Your task to perform on an android device: create a new album in the google photos Image 0: 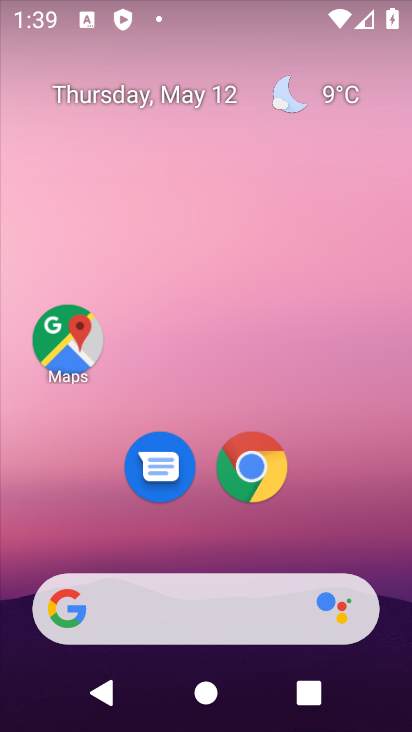
Step 0: click (311, 493)
Your task to perform on an android device: create a new album in the google photos Image 1: 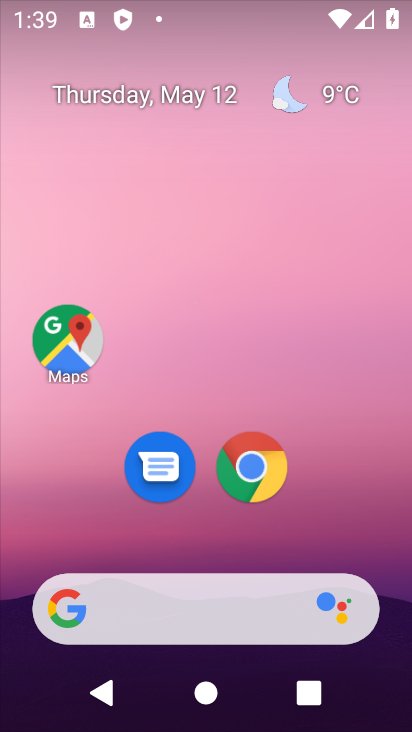
Step 1: drag from (315, 560) to (361, 223)
Your task to perform on an android device: create a new album in the google photos Image 2: 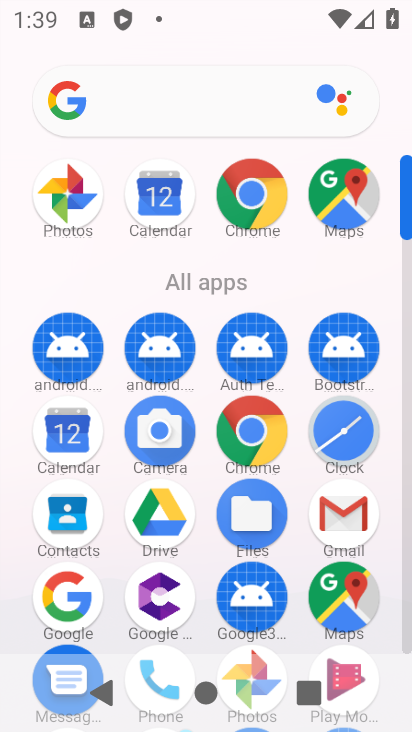
Step 2: drag from (176, 545) to (254, 229)
Your task to perform on an android device: create a new album in the google photos Image 3: 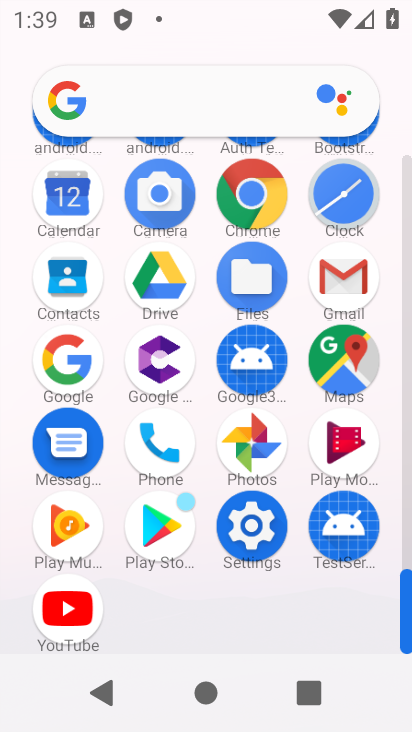
Step 3: click (247, 437)
Your task to perform on an android device: create a new album in the google photos Image 4: 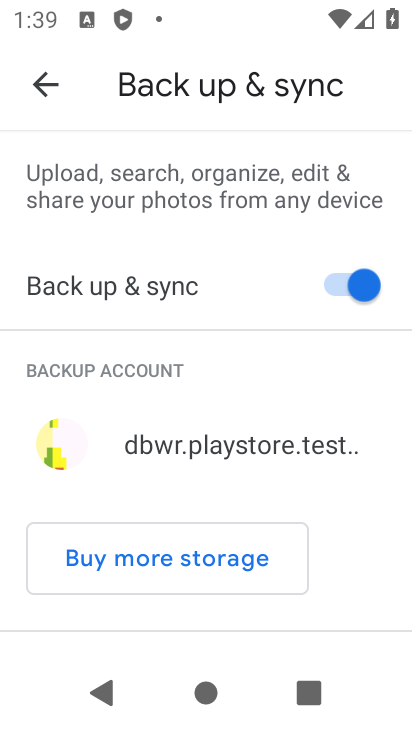
Step 4: click (30, 87)
Your task to perform on an android device: create a new album in the google photos Image 5: 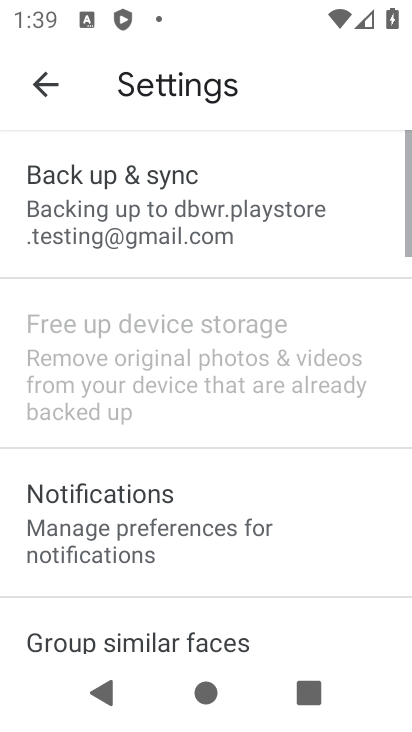
Step 5: click (30, 96)
Your task to perform on an android device: create a new album in the google photos Image 6: 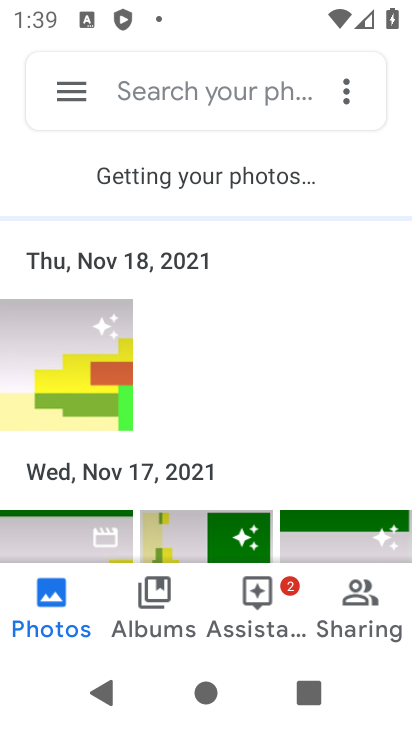
Step 6: click (68, 83)
Your task to perform on an android device: create a new album in the google photos Image 7: 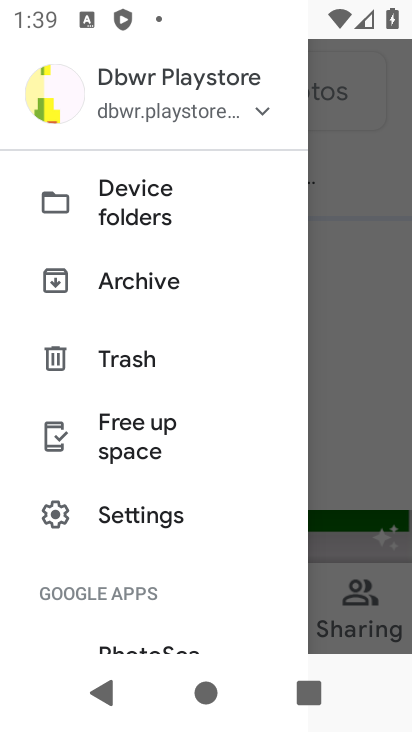
Step 7: click (370, 331)
Your task to perform on an android device: create a new album in the google photos Image 8: 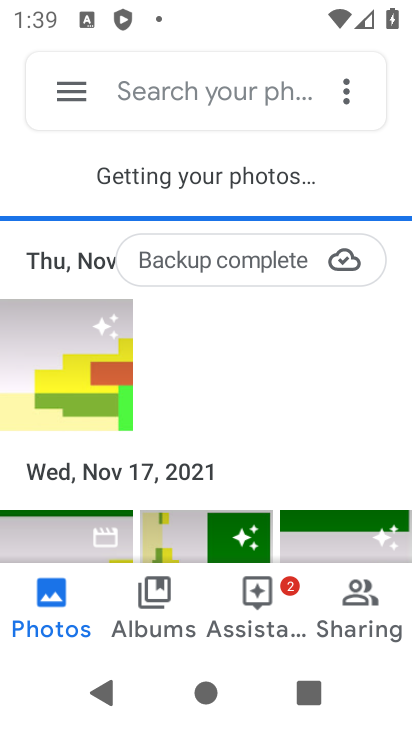
Step 8: click (116, 387)
Your task to perform on an android device: create a new album in the google photos Image 9: 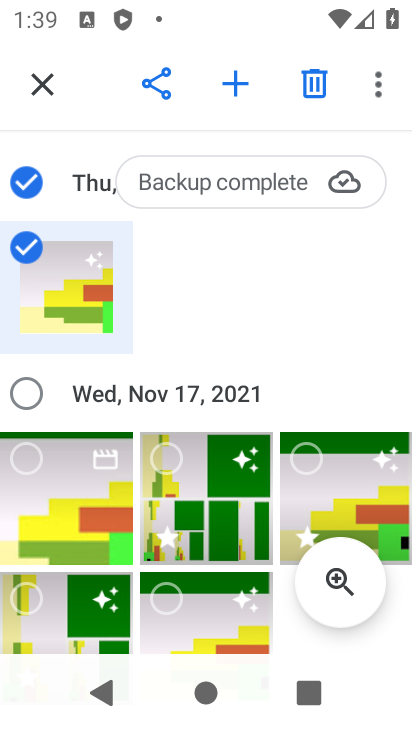
Step 9: click (216, 93)
Your task to perform on an android device: create a new album in the google photos Image 10: 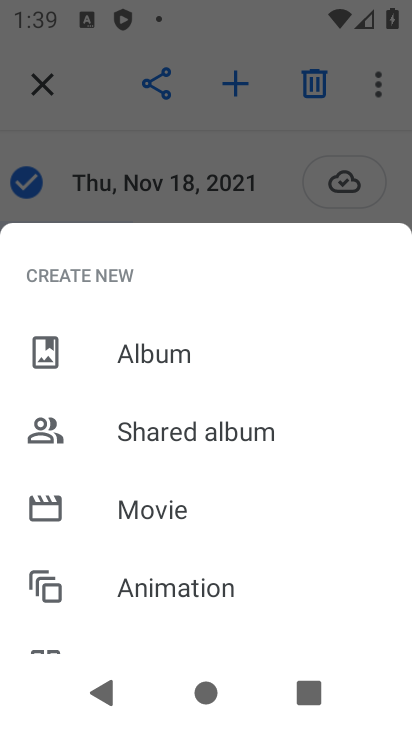
Step 10: click (161, 348)
Your task to perform on an android device: create a new album in the google photos Image 11: 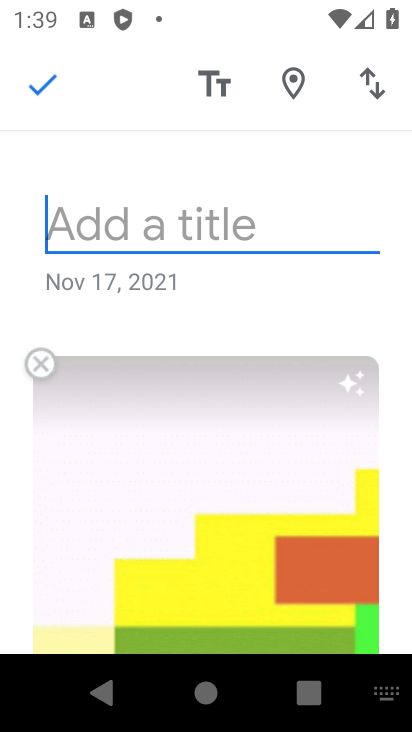
Step 11: click (144, 212)
Your task to perform on an android device: create a new album in the google photos Image 12: 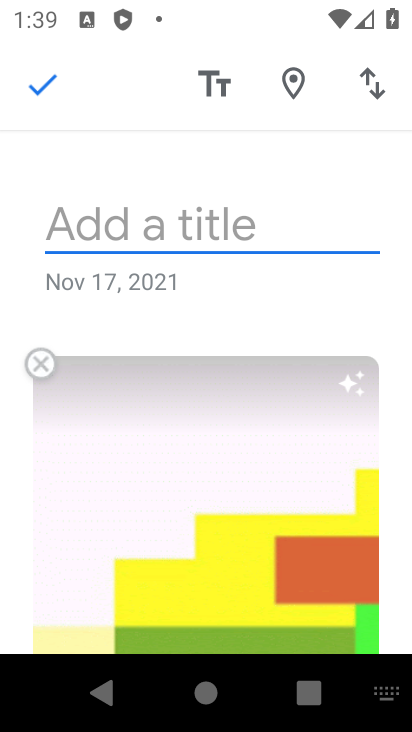
Step 12: type "dddddddddddd"
Your task to perform on an android device: create a new album in the google photos Image 13: 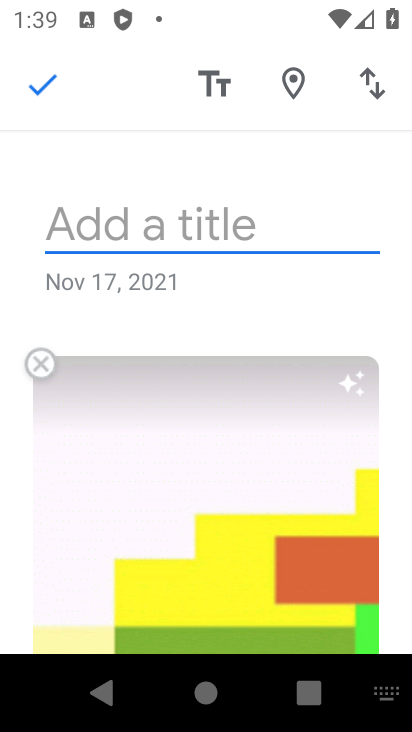
Step 13: click (38, 86)
Your task to perform on an android device: create a new album in the google photos Image 14: 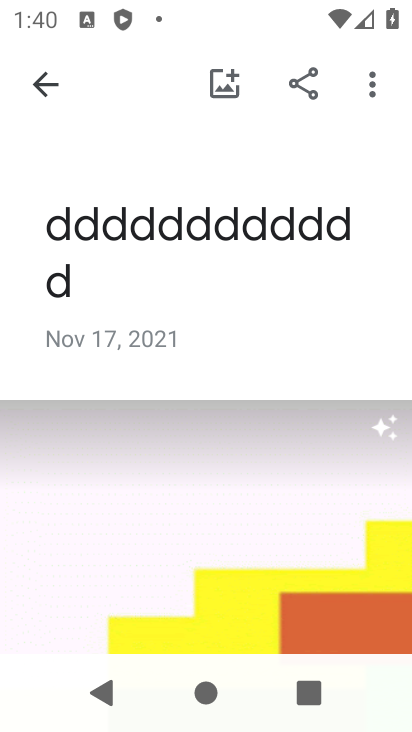
Step 14: task complete